Your task to perform on an android device: Search for pizza restaurants on Maps Image 0: 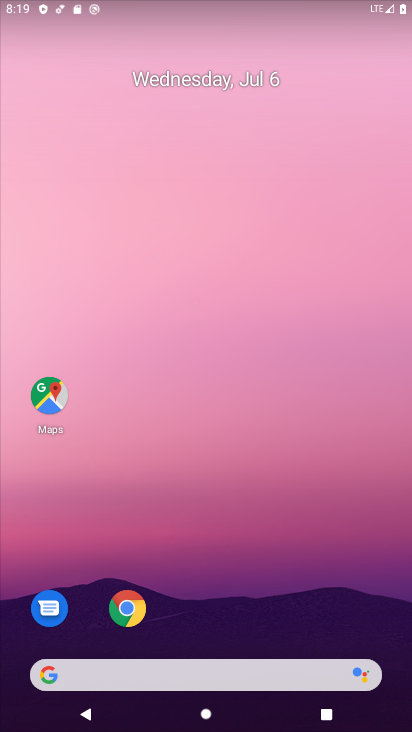
Step 0: drag from (362, 630) to (108, 363)
Your task to perform on an android device: Search for pizza restaurants on Maps Image 1: 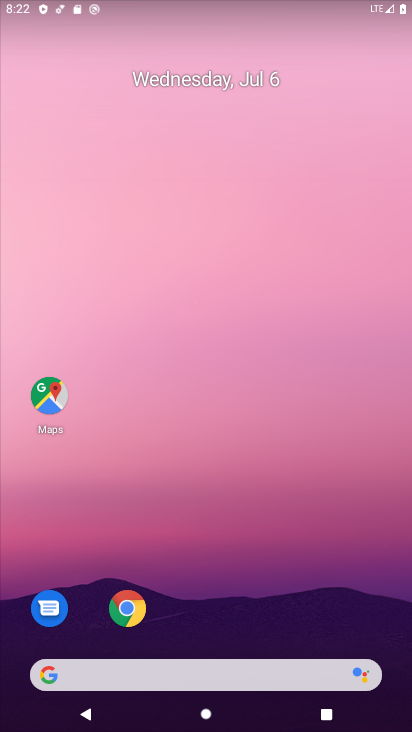
Step 1: drag from (392, 593) to (262, 37)
Your task to perform on an android device: Search for pizza restaurants on Maps Image 2: 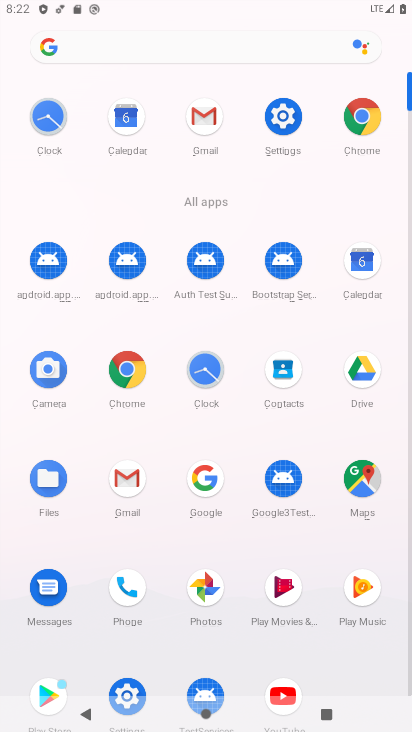
Step 2: click (350, 499)
Your task to perform on an android device: Search for pizza restaurants on Maps Image 3: 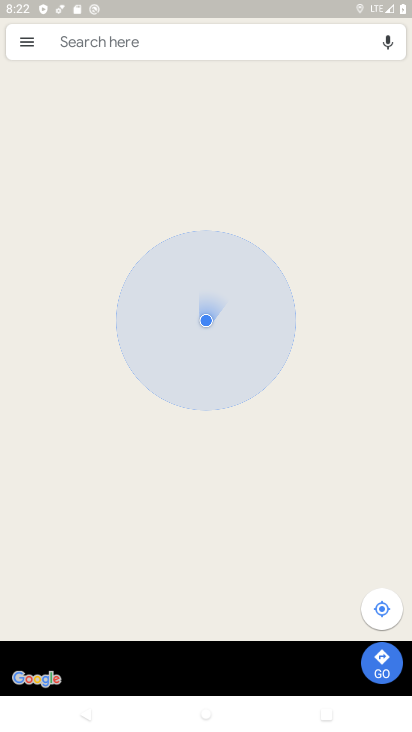
Step 3: click (156, 39)
Your task to perform on an android device: Search for pizza restaurants on Maps Image 4: 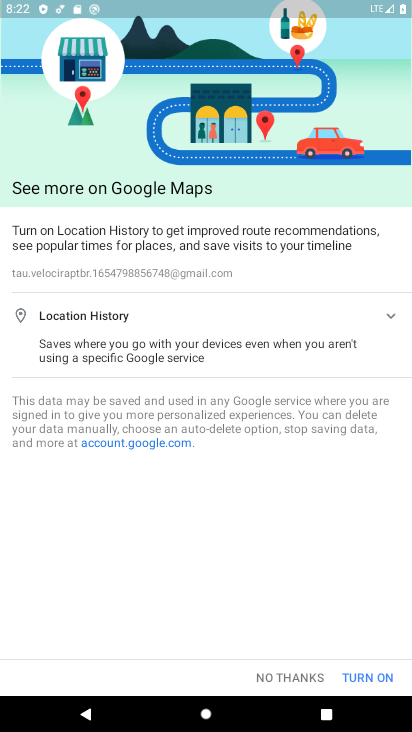
Step 4: click (311, 680)
Your task to perform on an android device: Search for pizza restaurants on Maps Image 5: 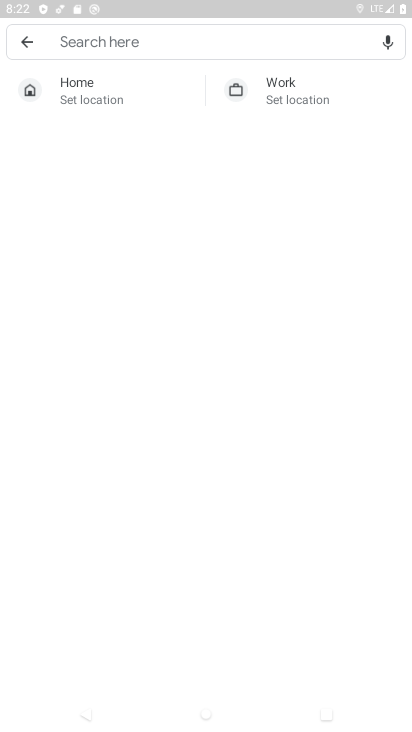
Step 5: click (148, 44)
Your task to perform on an android device: Search for pizza restaurants on Maps Image 6: 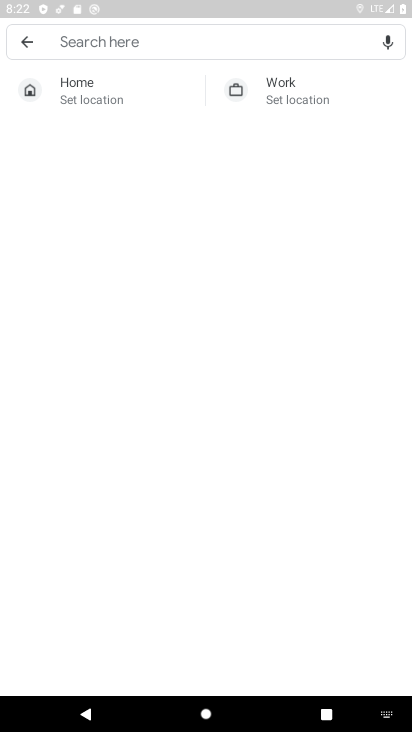
Step 6: type "pizza restaurants"
Your task to perform on an android device: Search for pizza restaurants on Maps Image 7: 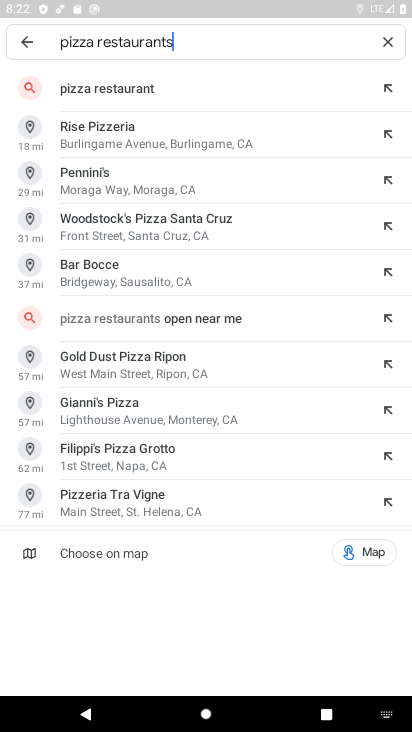
Step 7: click (134, 96)
Your task to perform on an android device: Search for pizza restaurants on Maps Image 8: 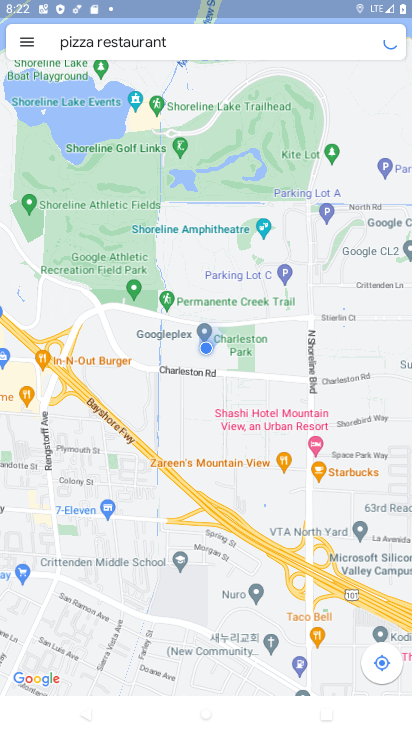
Step 8: task complete